Your task to perform on an android device: manage bookmarks in the chrome app Image 0: 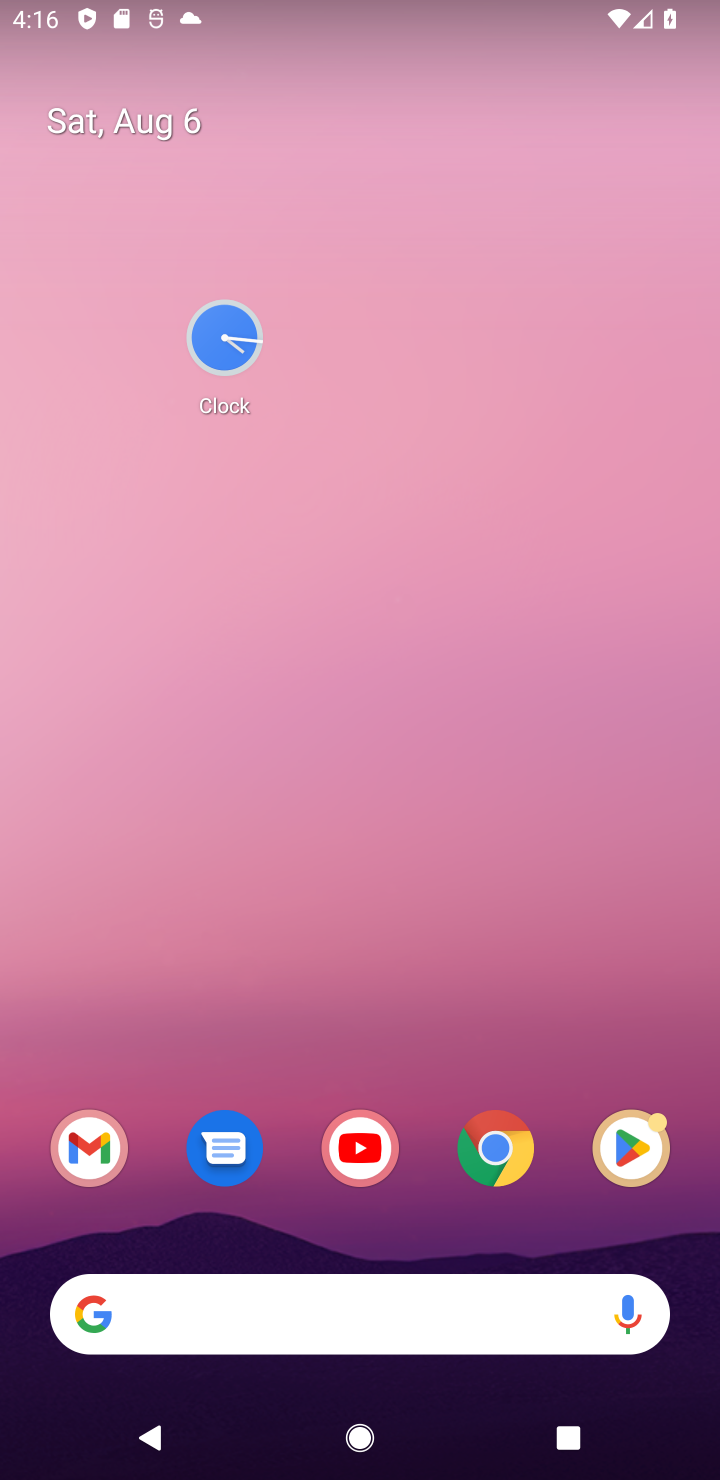
Step 0: drag from (408, 591) to (402, 236)
Your task to perform on an android device: manage bookmarks in the chrome app Image 1: 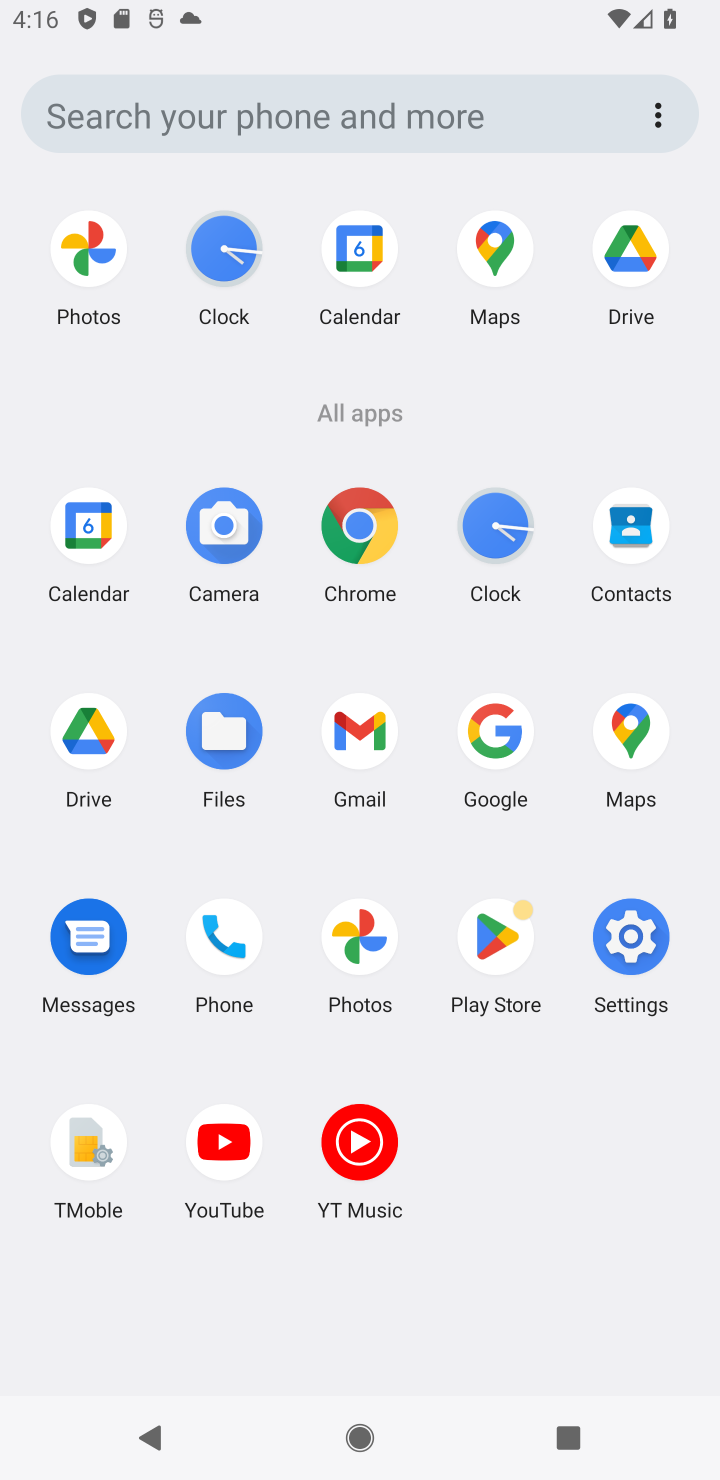
Step 1: click (346, 516)
Your task to perform on an android device: manage bookmarks in the chrome app Image 2: 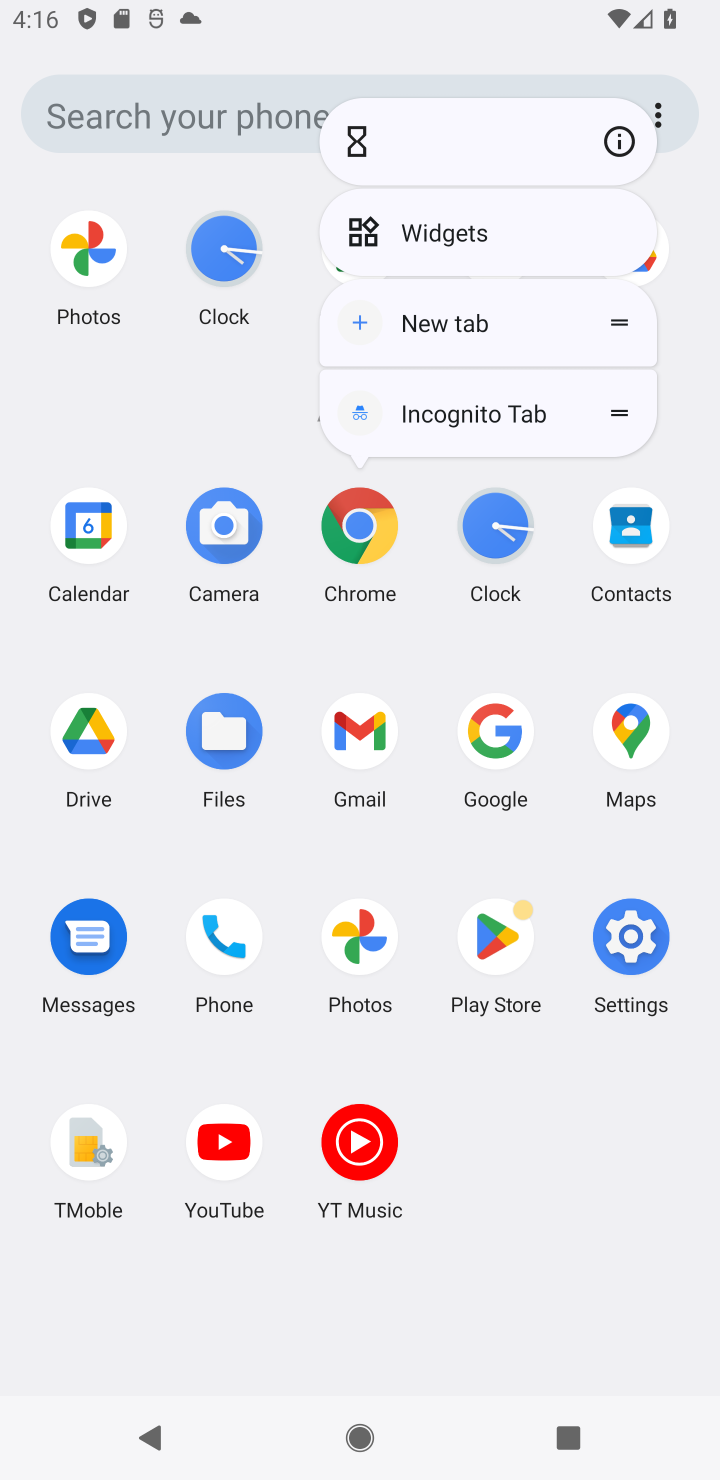
Step 2: click (637, 133)
Your task to perform on an android device: manage bookmarks in the chrome app Image 3: 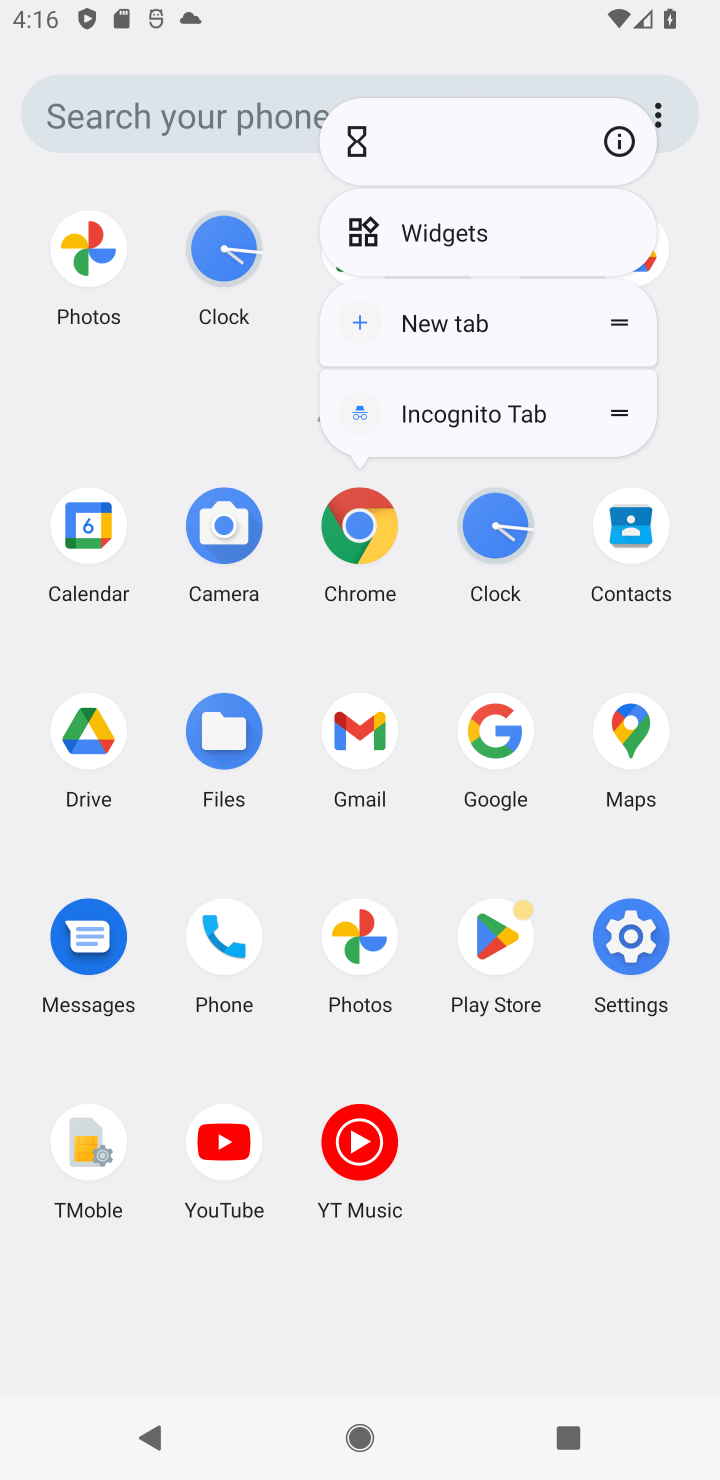
Step 3: click (623, 150)
Your task to perform on an android device: manage bookmarks in the chrome app Image 4: 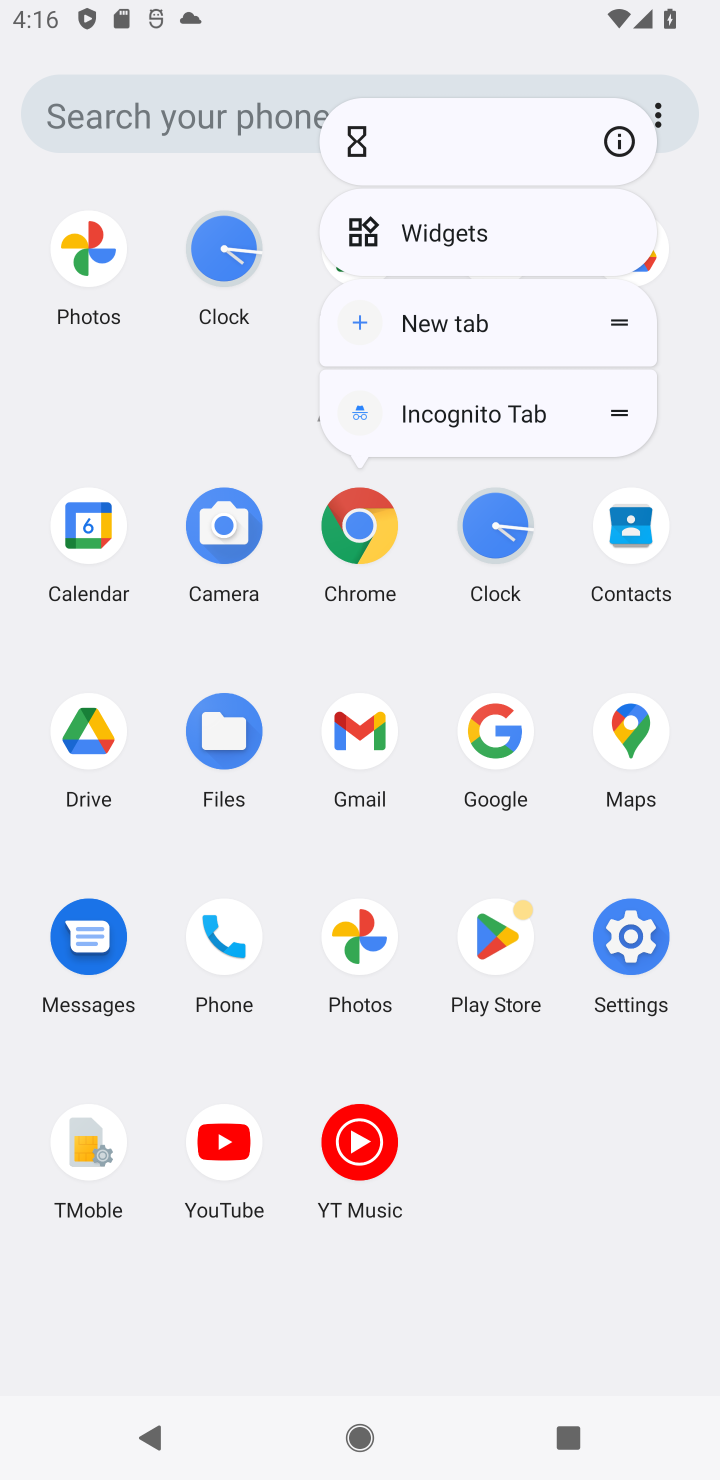
Step 4: click (622, 145)
Your task to perform on an android device: manage bookmarks in the chrome app Image 5: 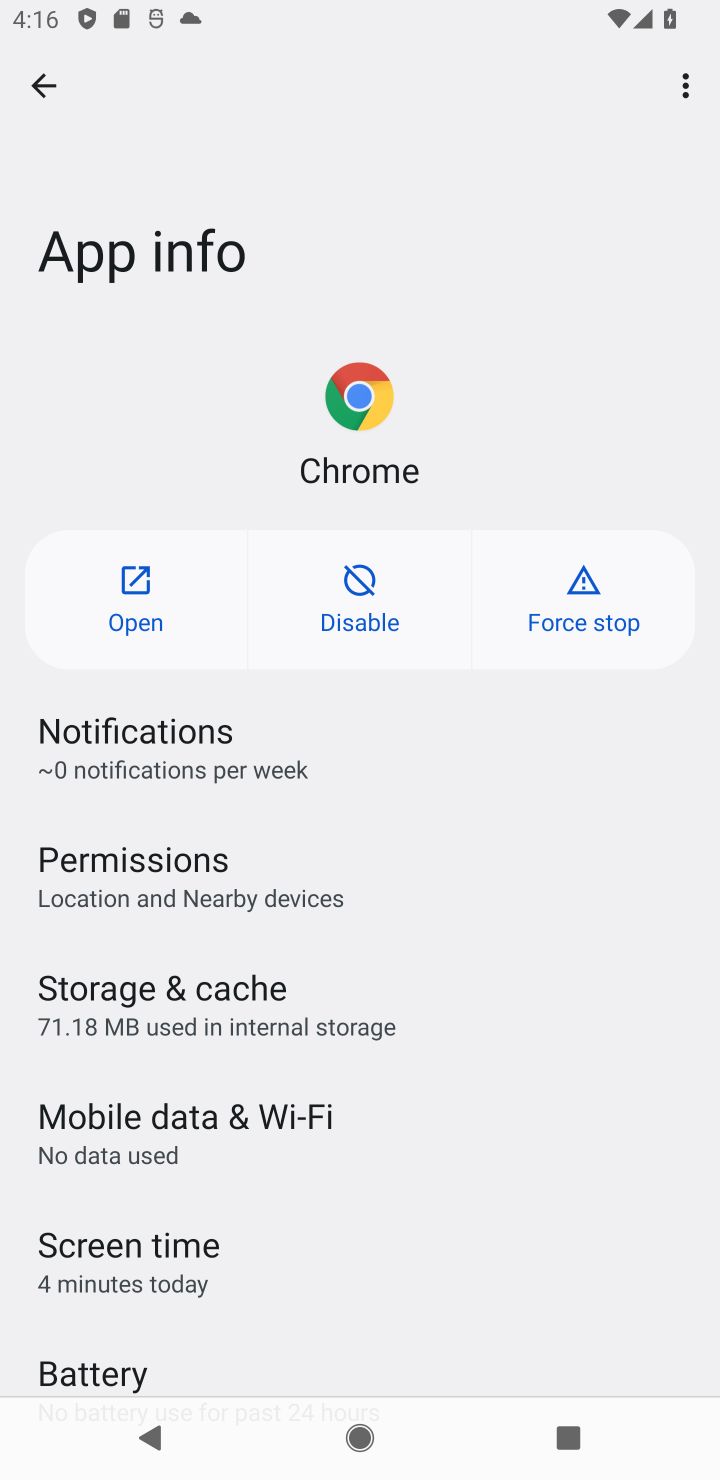
Step 5: click (130, 621)
Your task to perform on an android device: manage bookmarks in the chrome app Image 6: 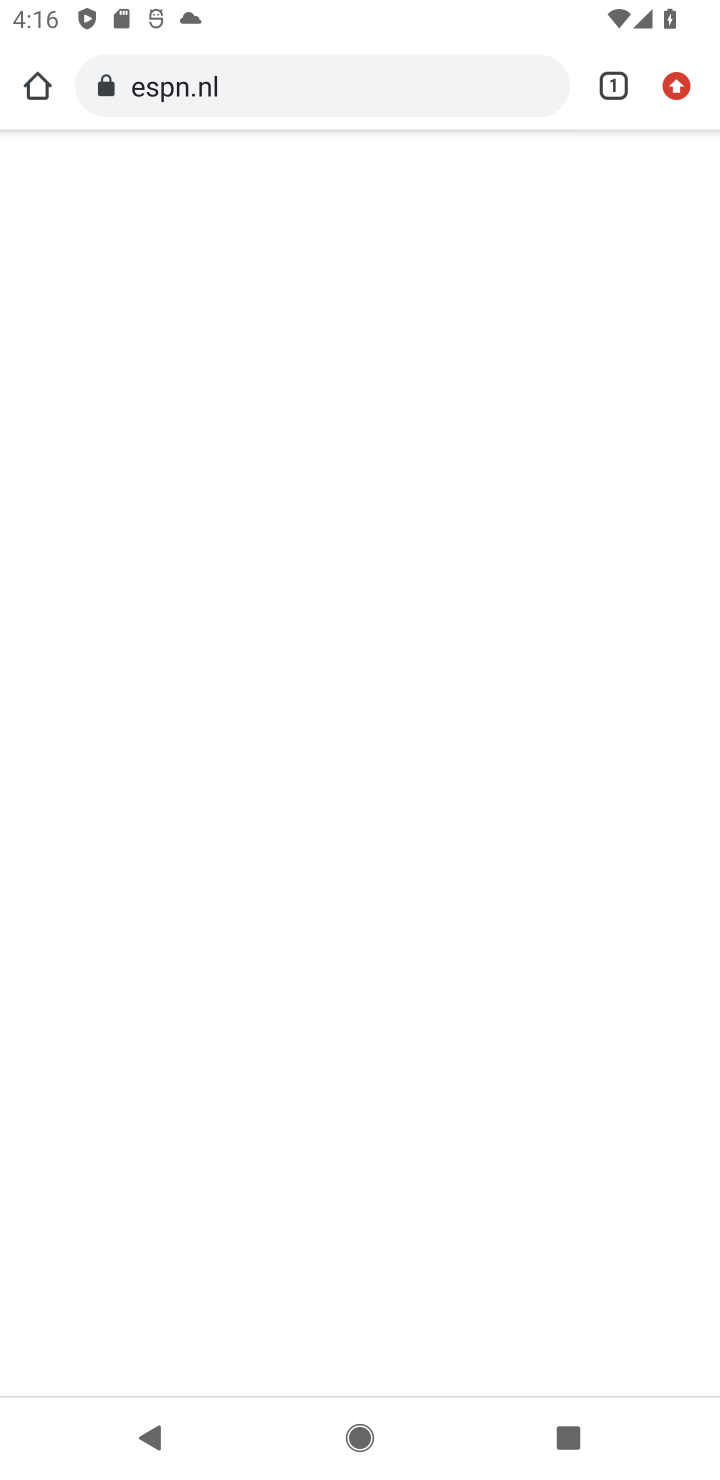
Step 6: task complete